Your task to perform on an android device: Open Google Chrome Image 0: 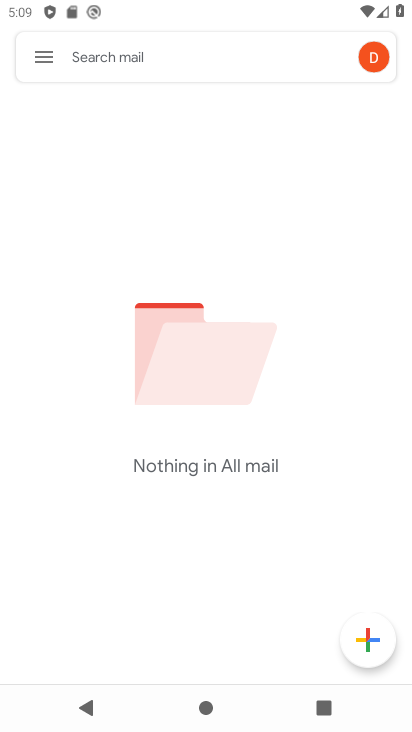
Step 0: press back button
Your task to perform on an android device: Open Google Chrome Image 1: 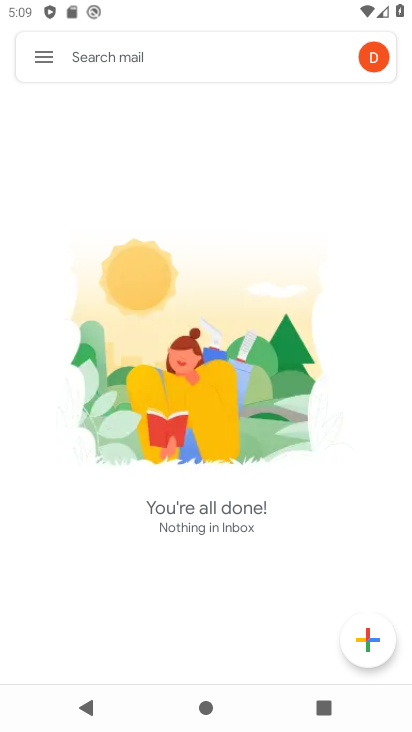
Step 1: press home button
Your task to perform on an android device: Open Google Chrome Image 2: 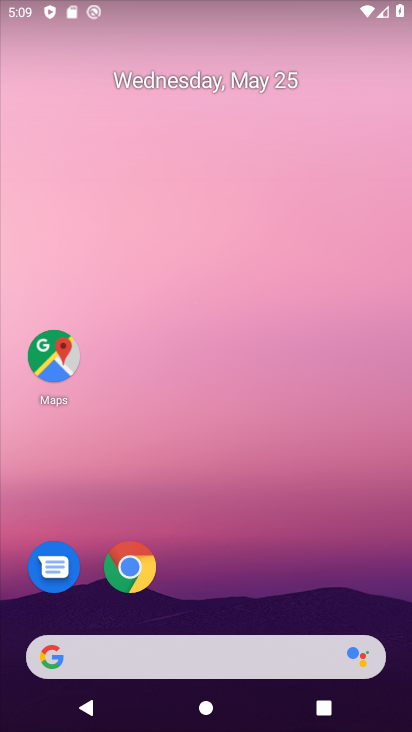
Step 2: drag from (245, 572) to (243, 71)
Your task to perform on an android device: Open Google Chrome Image 3: 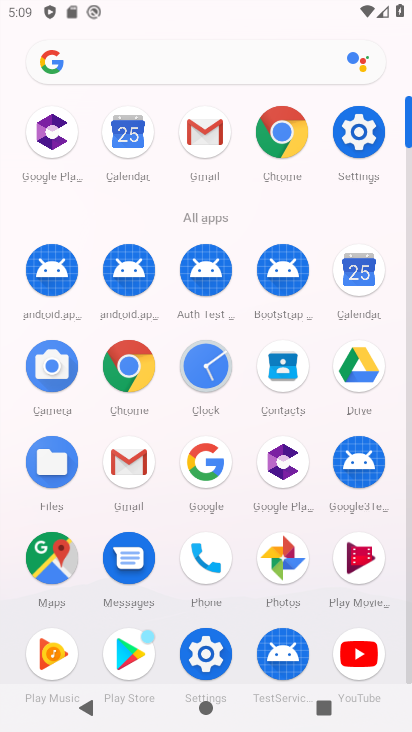
Step 3: click (283, 132)
Your task to perform on an android device: Open Google Chrome Image 4: 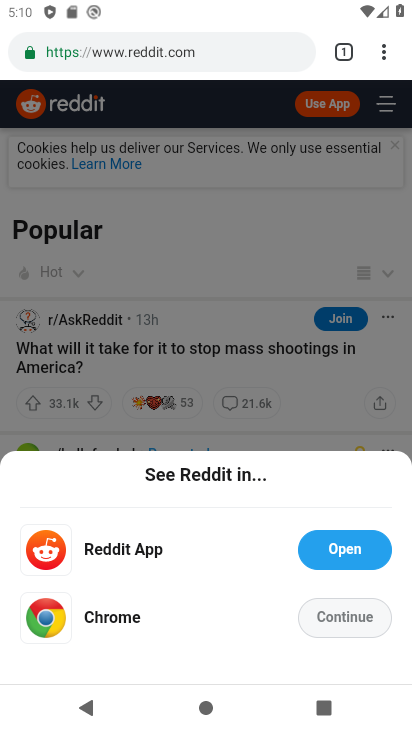
Step 4: task complete